Your task to perform on an android device: toggle airplane mode Image 0: 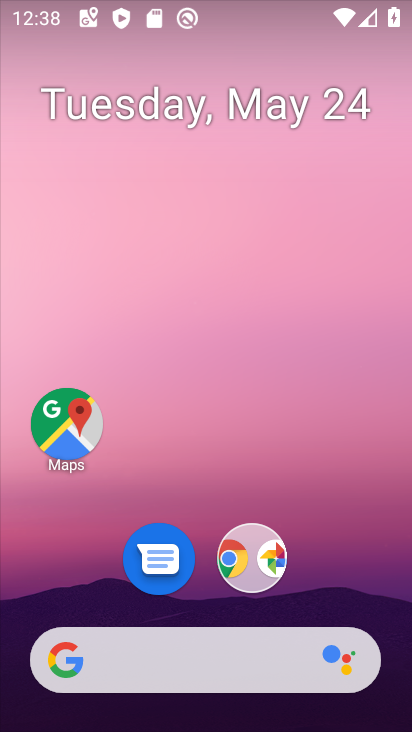
Step 0: drag from (280, 637) to (215, 243)
Your task to perform on an android device: toggle airplane mode Image 1: 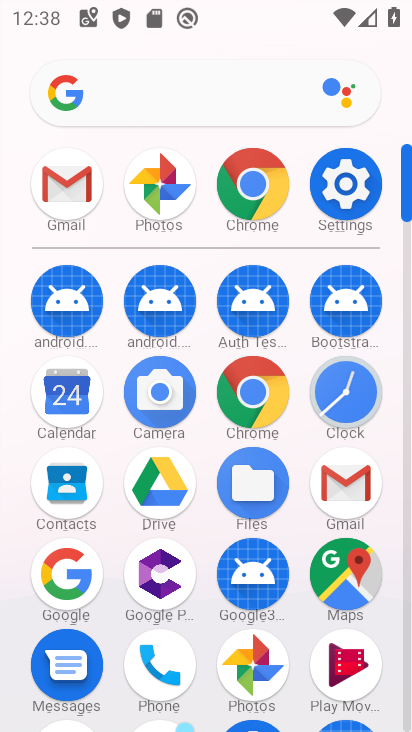
Step 1: click (342, 196)
Your task to perform on an android device: toggle airplane mode Image 2: 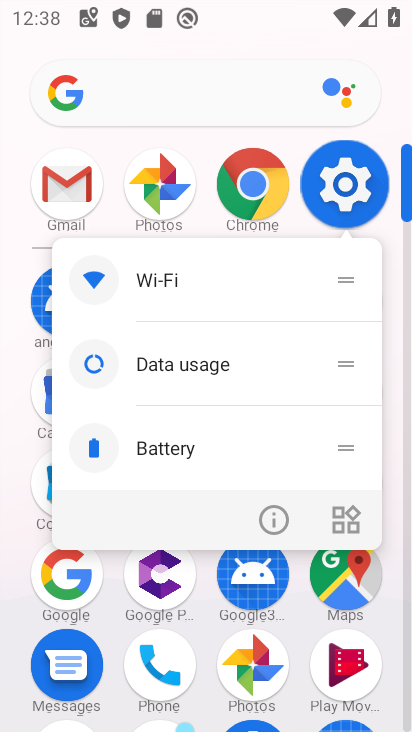
Step 2: click (342, 196)
Your task to perform on an android device: toggle airplane mode Image 3: 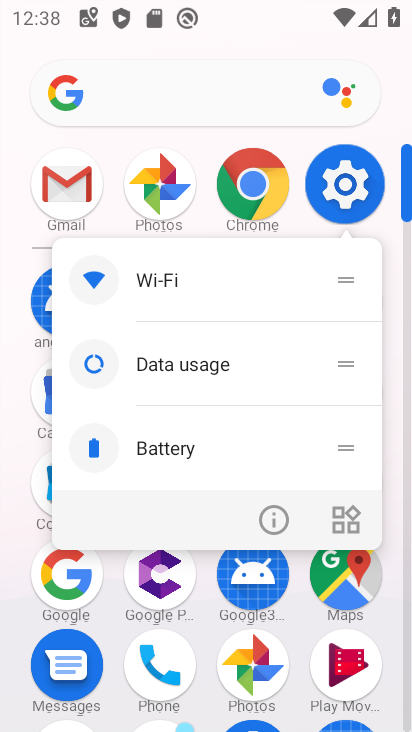
Step 3: click (342, 196)
Your task to perform on an android device: toggle airplane mode Image 4: 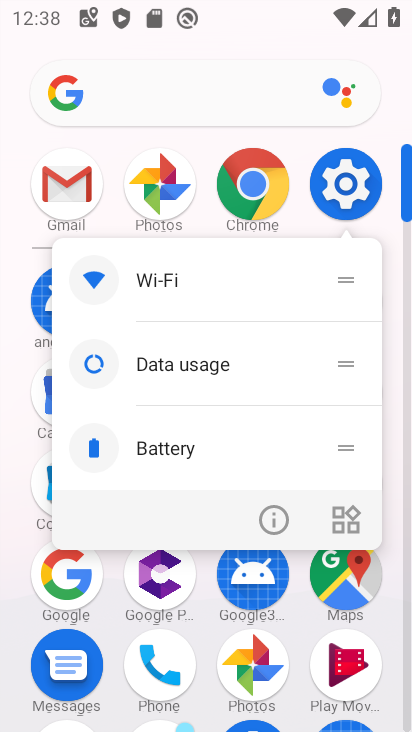
Step 4: click (341, 171)
Your task to perform on an android device: toggle airplane mode Image 5: 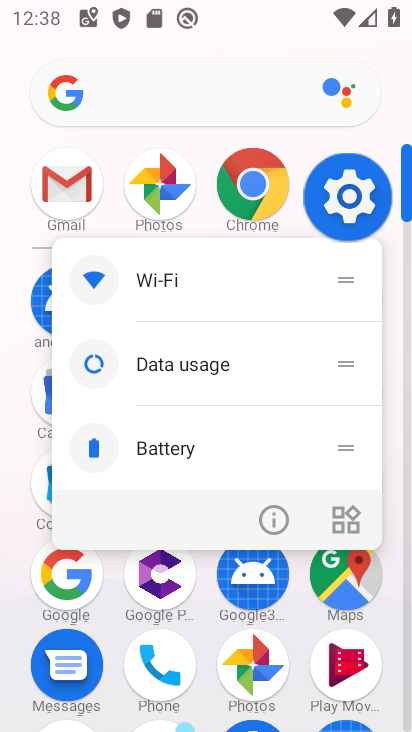
Step 5: click (343, 183)
Your task to perform on an android device: toggle airplane mode Image 6: 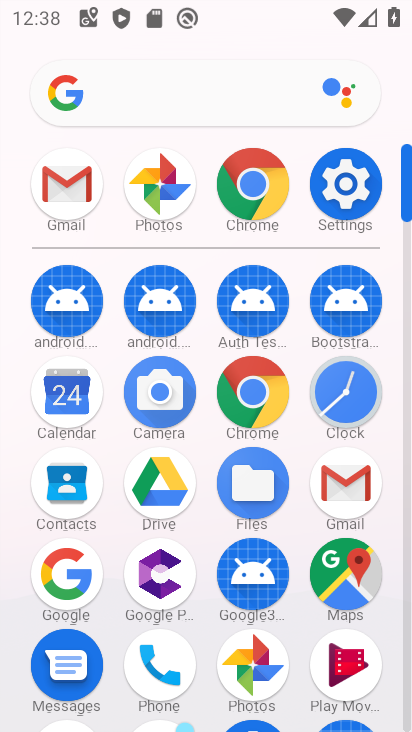
Step 6: click (335, 197)
Your task to perform on an android device: toggle airplane mode Image 7: 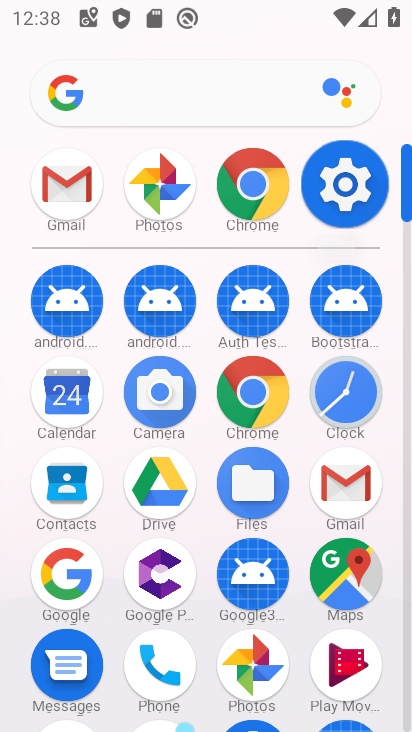
Step 7: click (336, 195)
Your task to perform on an android device: toggle airplane mode Image 8: 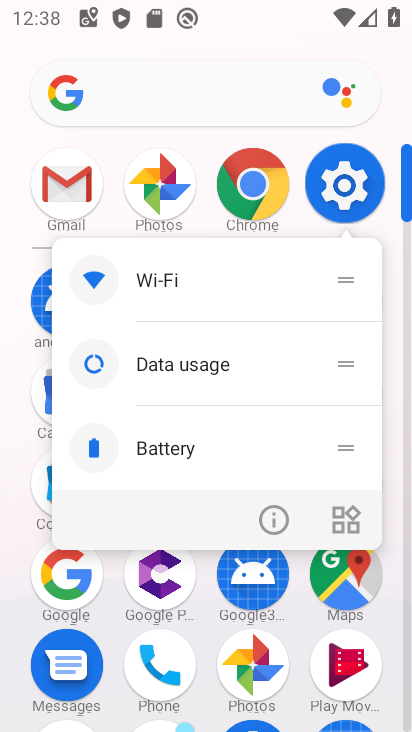
Step 8: click (335, 194)
Your task to perform on an android device: toggle airplane mode Image 9: 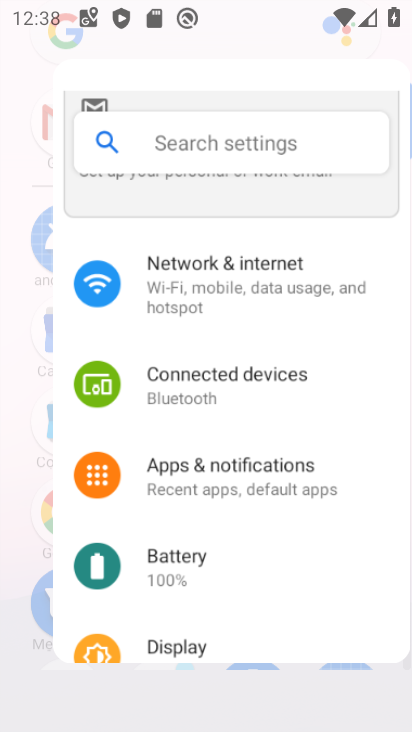
Step 9: click (335, 194)
Your task to perform on an android device: toggle airplane mode Image 10: 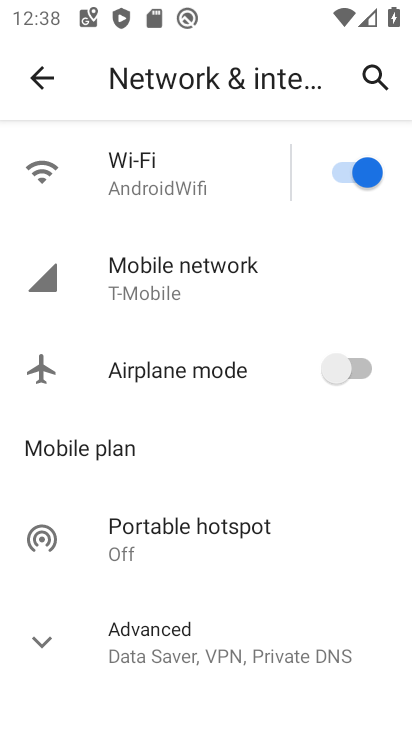
Step 10: drag from (204, 539) to (197, 167)
Your task to perform on an android device: toggle airplane mode Image 11: 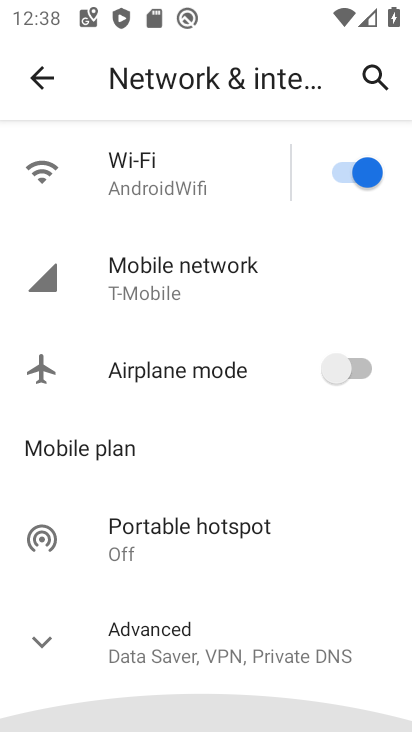
Step 11: drag from (232, 479) to (147, 169)
Your task to perform on an android device: toggle airplane mode Image 12: 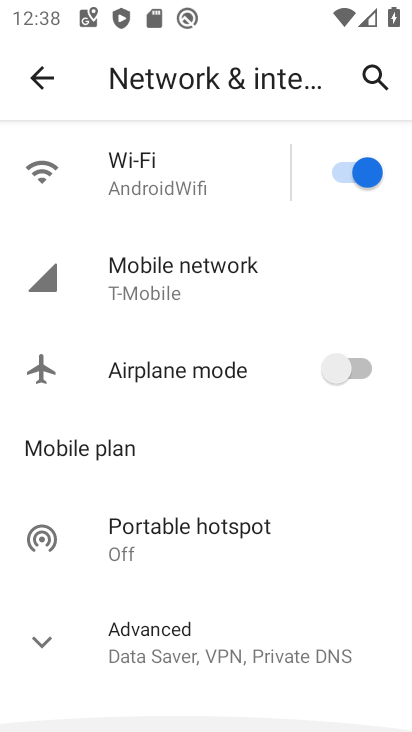
Step 12: drag from (228, 492) to (157, 146)
Your task to perform on an android device: toggle airplane mode Image 13: 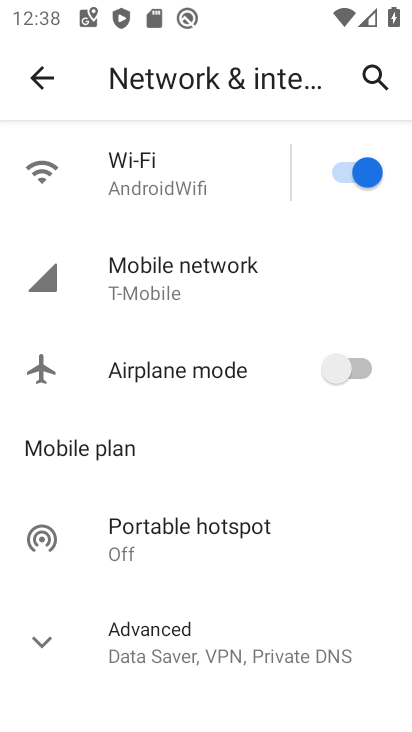
Step 13: drag from (218, 612) to (143, 164)
Your task to perform on an android device: toggle airplane mode Image 14: 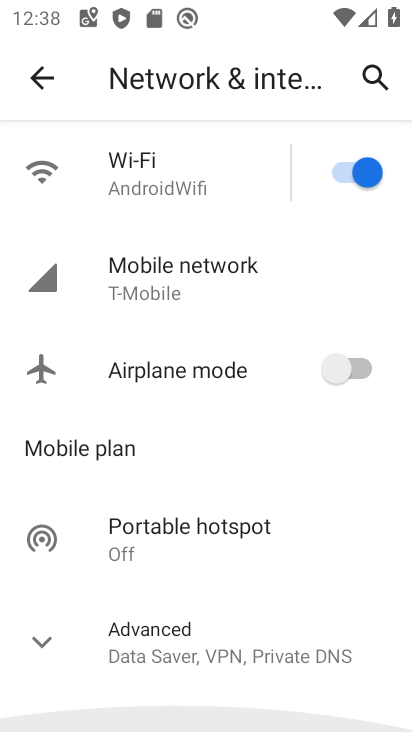
Step 14: click (38, 71)
Your task to perform on an android device: toggle airplane mode Image 15: 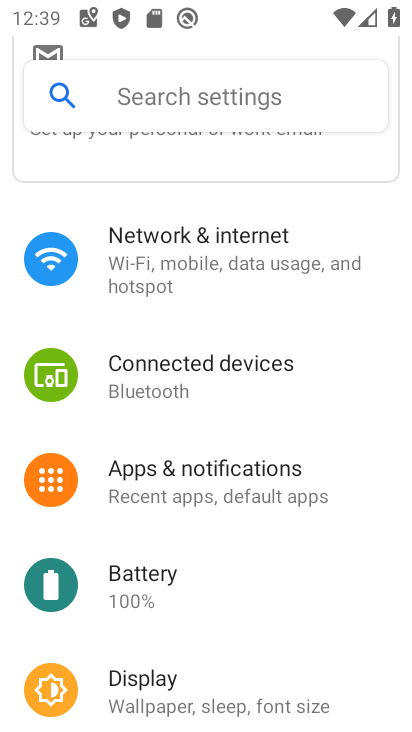
Step 15: drag from (180, 555) to (180, 186)
Your task to perform on an android device: toggle airplane mode Image 16: 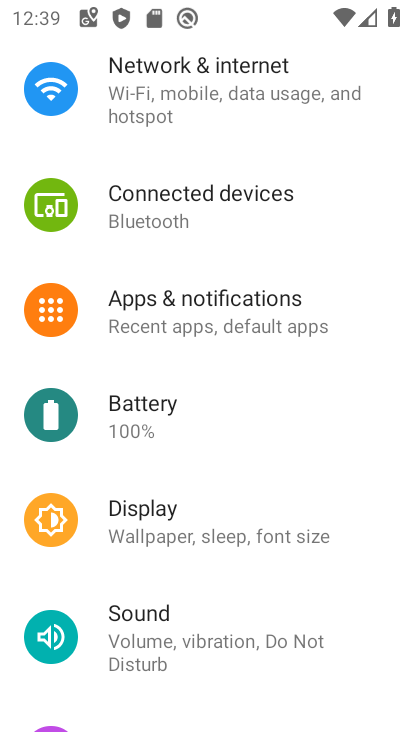
Step 16: drag from (187, 532) to (187, 242)
Your task to perform on an android device: toggle airplane mode Image 17: 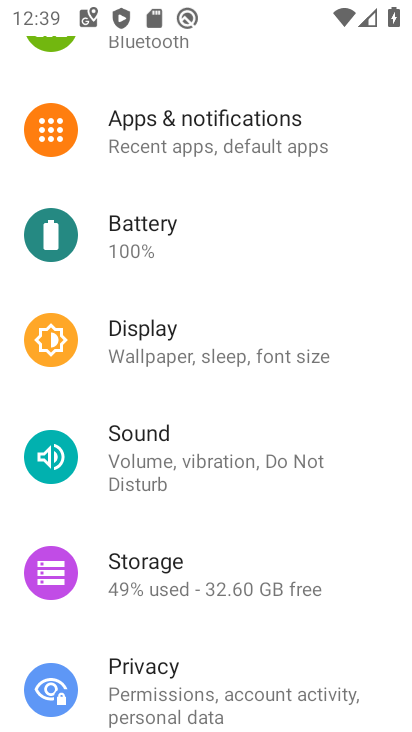
Step 17: drag from (216, 444) to (213, 103)
Your task to perform on an android device: toggle airplane mode Image 18: 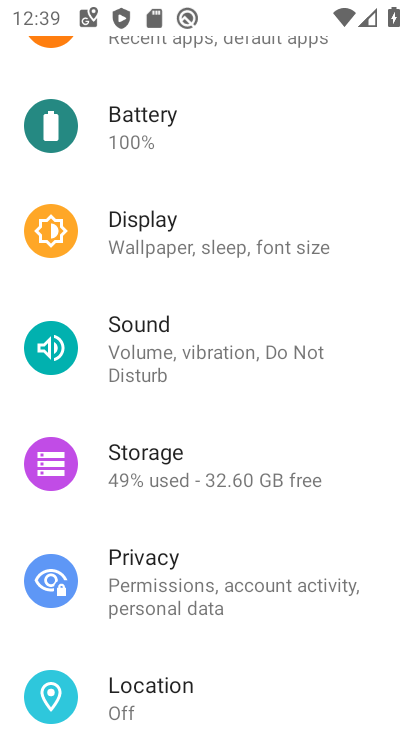
Step 18: drag from (221, 505) to (206, 32)
Your task to perform on an android device: toggle airplane mode Image 19: 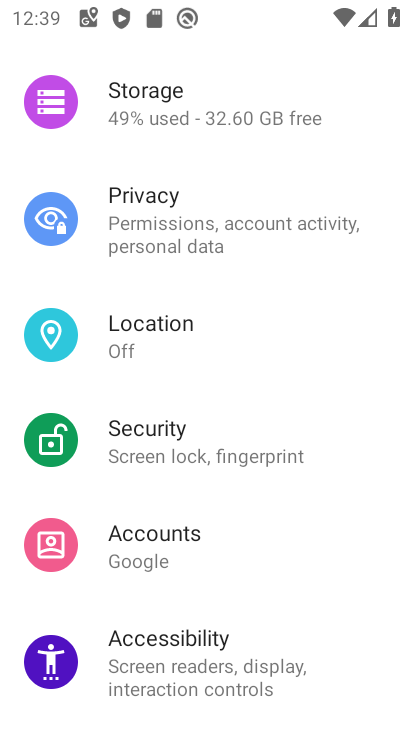
Step 19: drag from (182, 567) to (152, 19)
Your task to perform on an android device: toggle airplane mode Image 20: 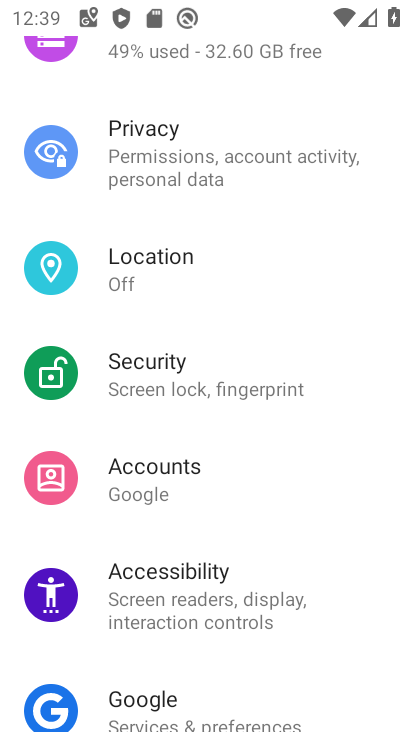
Step 20: drag from (165, 437) to (181, 23)
Your task to perform on an android device: toggle airplane mode Image 21: 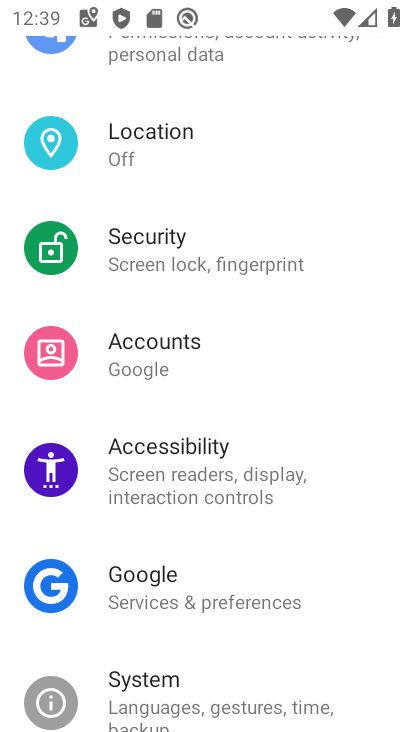
Step 21: drag from (164, 540) to (133, 2)
Your task to perform on an android device: toggle airplane mode Image 22: 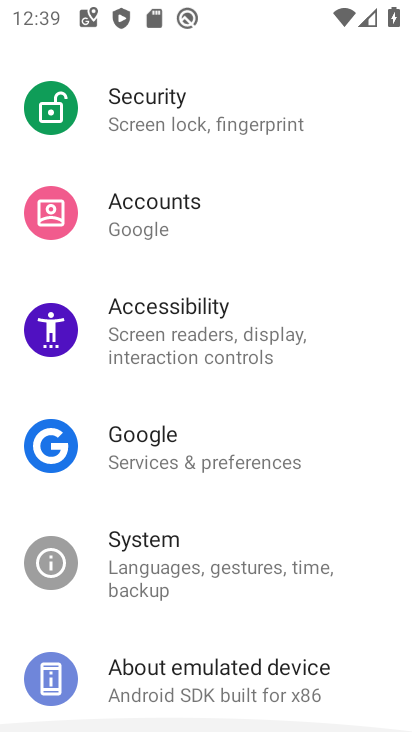
Step 22: drag from (207, 416) to (204, 121)
Your task to perform on an android device: toggle airplane mode Image 23: 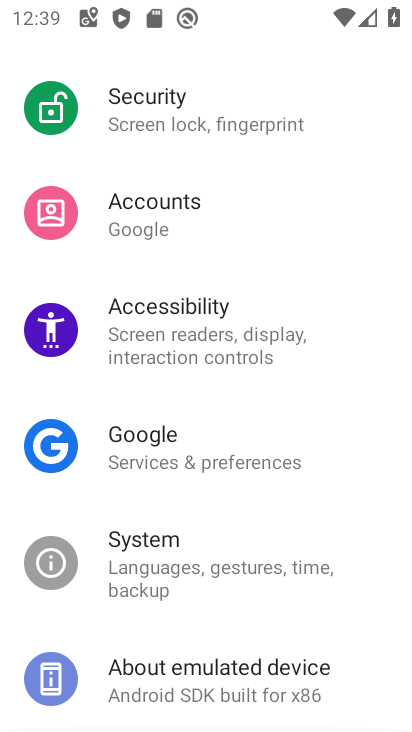
Step 23: drag from (162, 286) to (152, 156)
Your task to perform on an android device: toggle airplane mode Image 24: 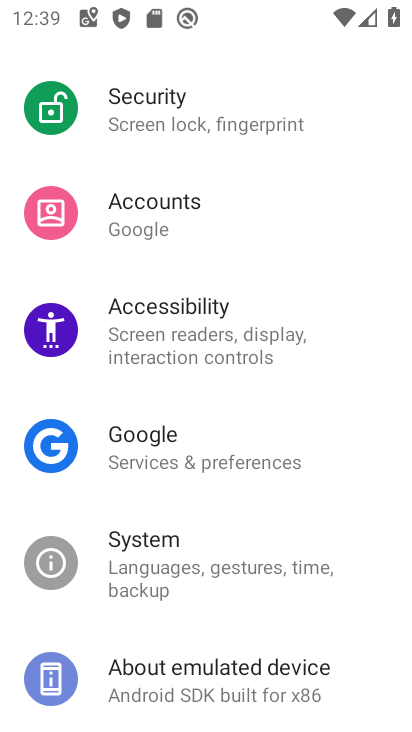
Step 24: drag from (129, 494) to (124, 5)
Your task to perform on an android device: toggle airplane mode Image 25: 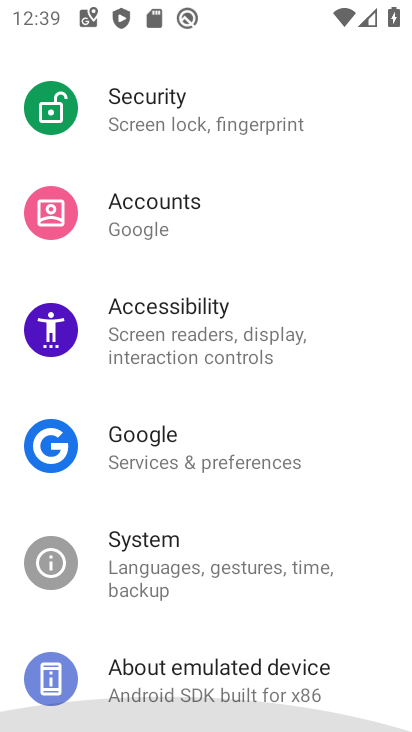
Step 25: drag from (143, 554) to (132, 6)
Your task to perform on an android device: toggle airplane mode Image 26: 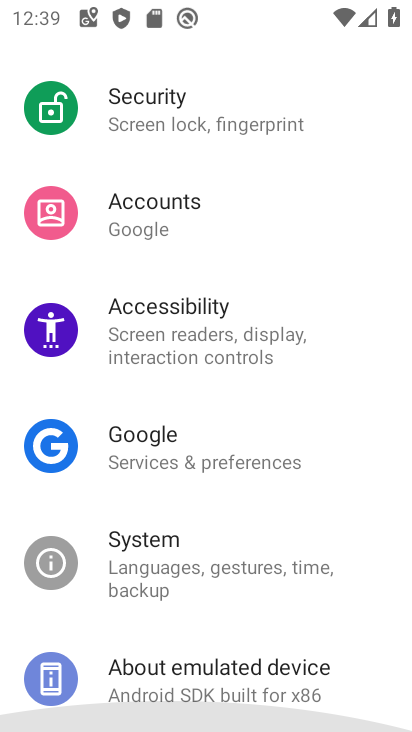
Step 26: drag from (224, 560) to (194, 103)
Your task to perform on an android device: toggle airplane mode Image 27: 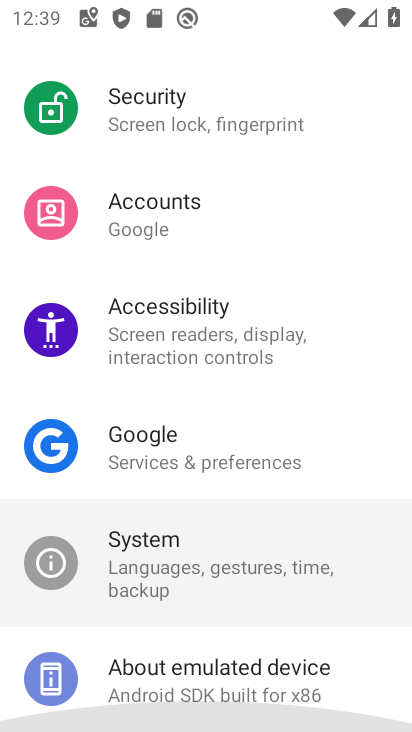
Step 27: drag from (212, 497) to (204, 92)
Your task to perform on an android device: toggle airplane mode Image 28: 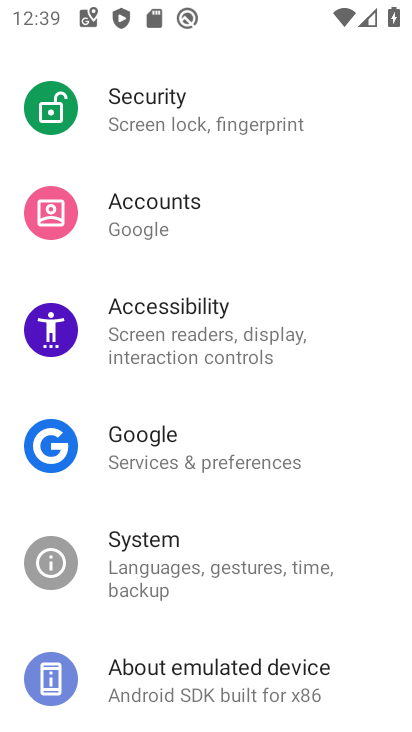
Step 28: drag from (137, 201) to (211, 639)
Your task to perform on an android device: toggle airplane mode Image 29: 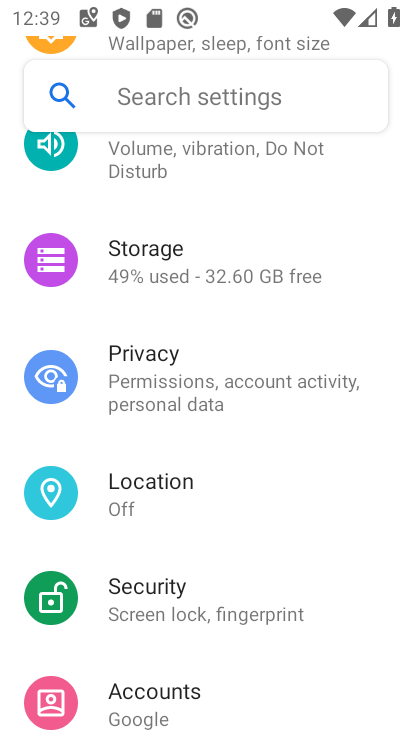
Step 29: drag from (207, 131) to (209, 719)
Your task to perform on an android device: toggle airplane mode Image 30: 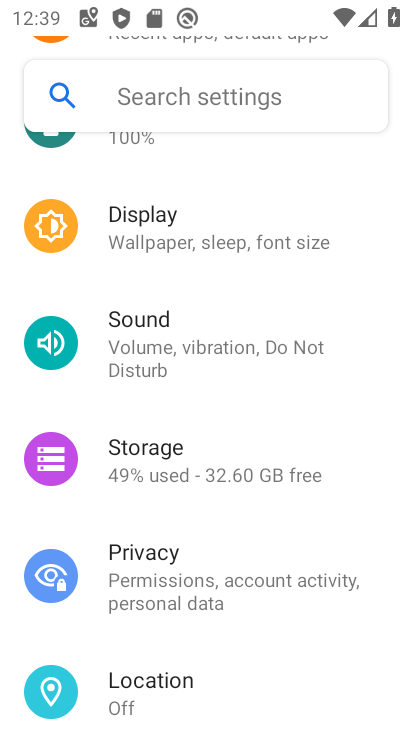
Step 30: drag from (293, 323) to (292, 684)
Your task to perform on an android device: toggle airplane mode Image 31: 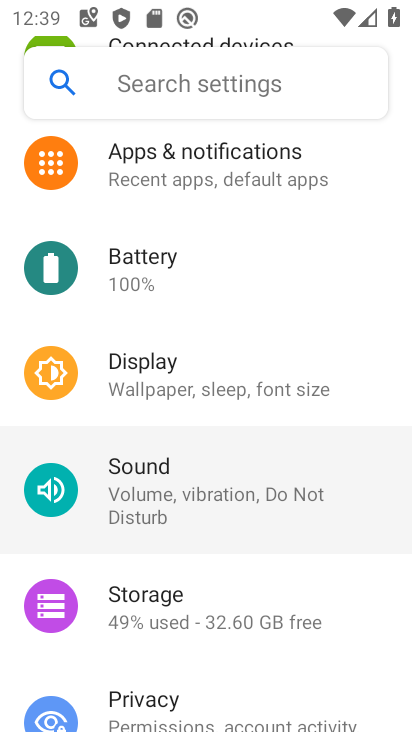
Step 31: drag from (215, 244) to (211, 723)
Your task to perform on an android device: toggle airplane mode Image 32: 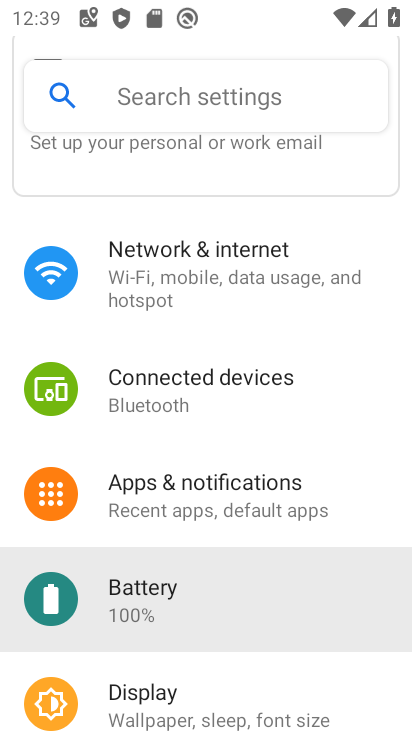
Step 32: drag from (188, 272) to (190, 654)
Your task to perform on an android device: toggle airplane mode Image 33: 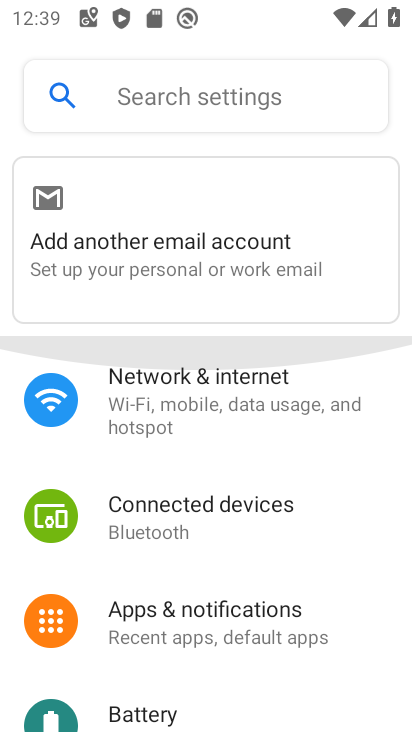
Step 33: drag from (176, 230) to (237, 666)
Your task to perform on an android device: toggle airplane mode Image 34: 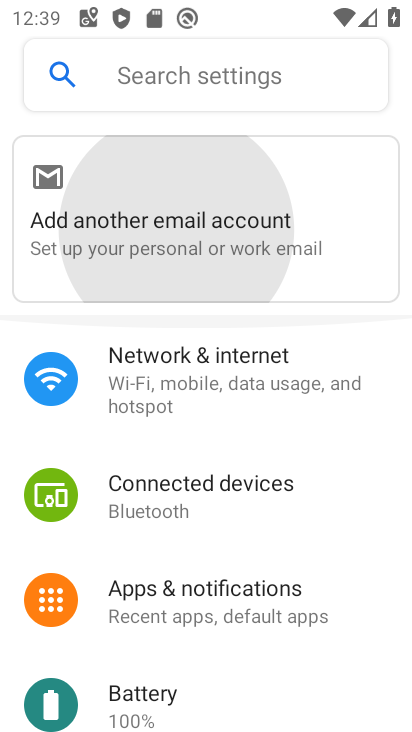
Step 34: drag from (217, 577) to (209, 721)
Your task to perform on an android device: toggle airplane mode Image 35: 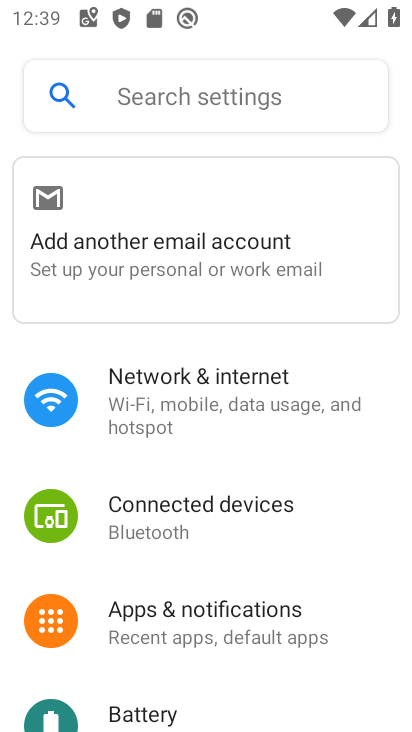
Step 35: drag from (271, 612) to (244, 289)
Your task to perform on an android device: toggle airplane mode Image 36: 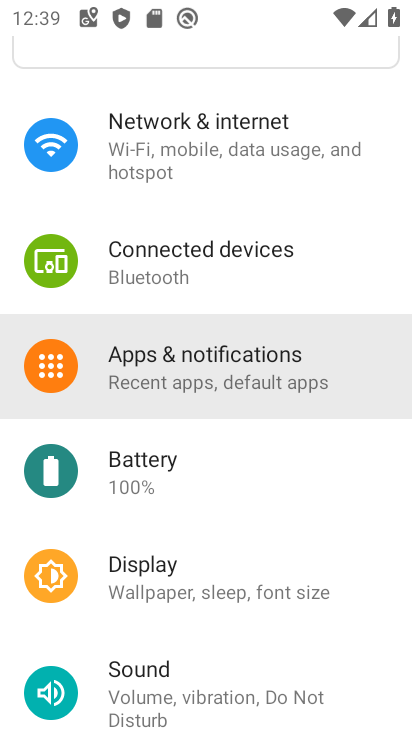
Step 36: drag from (254, 517) to (228, 117)
Your task to perform on an android device: toggle airplane mode Image 37: 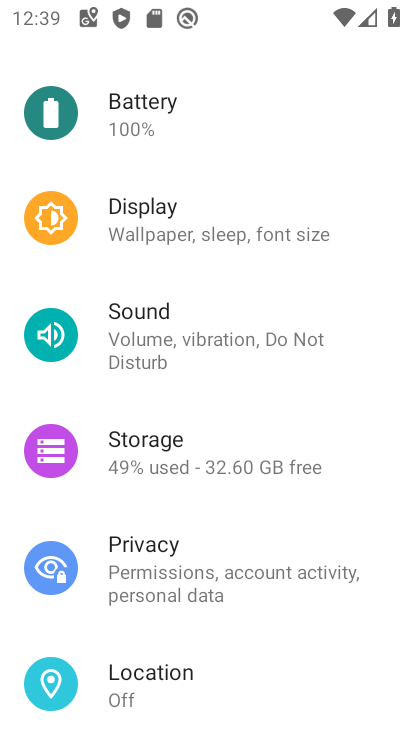
Step 37: click (192, 115)
Your task to perform on an android device: toggle airplane mode Image 38: 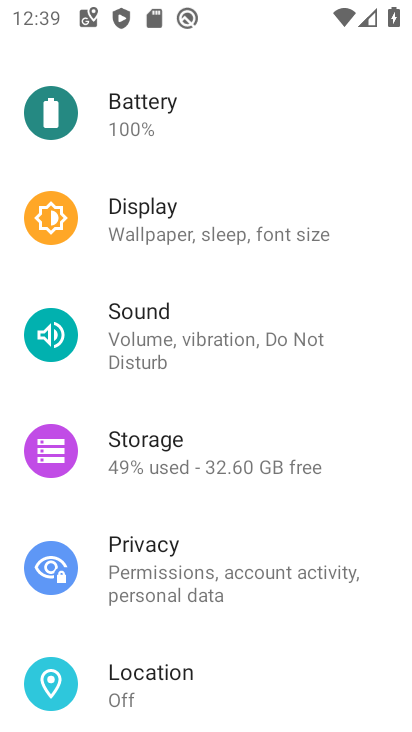
Step 38: drag from (206, 216) to (206, 68)
Your task to perform on an android device: toggle airplane mode Image 39: 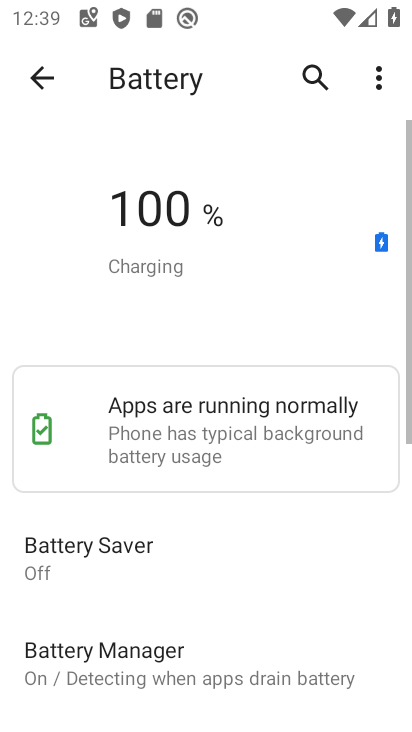
Step 39: click (49, 66)
Your task to perform on an android device: toggle airplane mode Image 40: 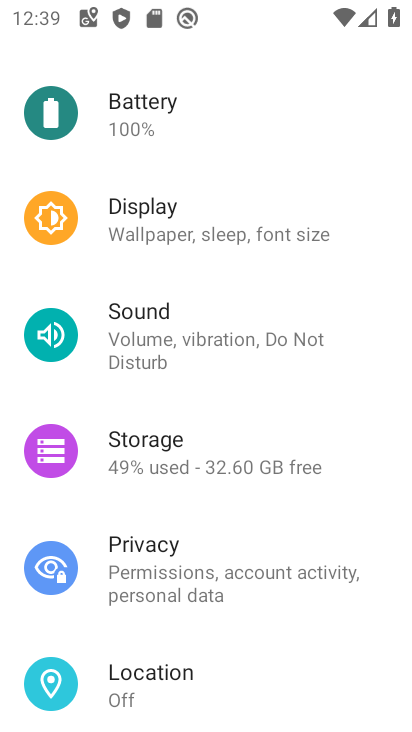
Step 40: drag from (235, 379) to (188, 1)
Your task to perform on an android device: toggle airplane mode Image 41: 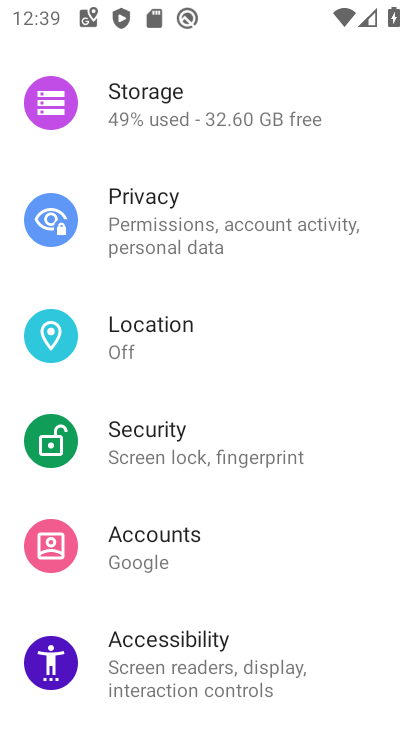
Step 41: drag from (248, 429) to (229, 88)
Your task to perform on an android device: toggle airplane mode Image 42: 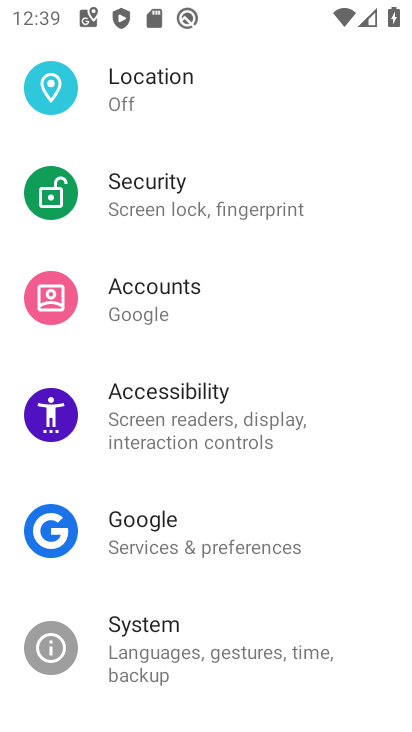
Step 42: click (205, 91)
Your task to perform on an android device: toggle airplane mode Image 43: 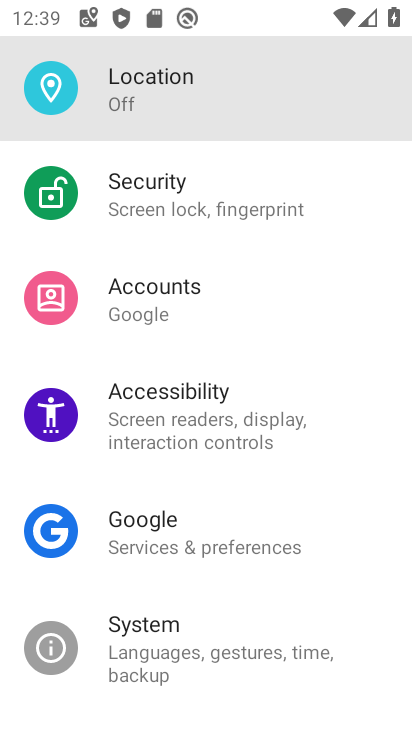
Step 43: drag from (201, 415) to (170, 212)
Your task to perform on an android device: toggle airplane mode Image 44: 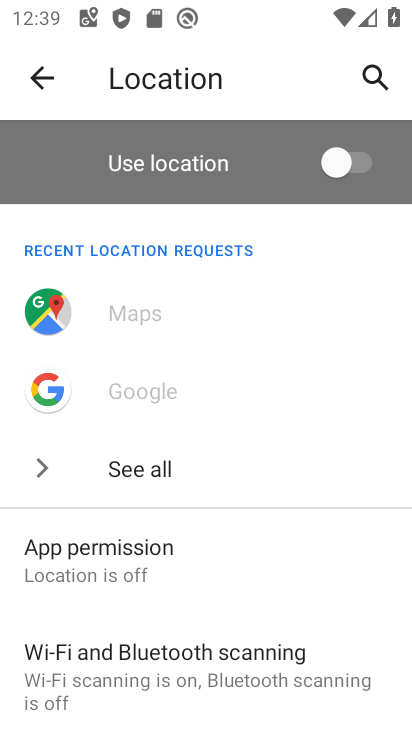
Step 44: click (39, 79)
Your task to perform on an android device: toggle airplane mode Image 45: 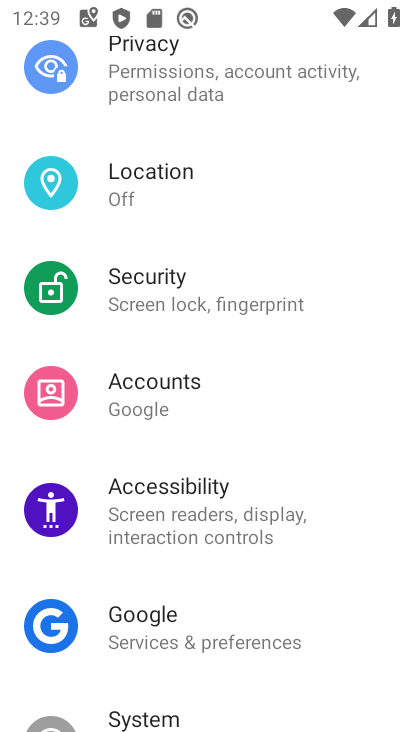
Step 45: drag from (147, 205) to (201, 585)
Your task to perform on an android device: toggle airplane mode Image 46: 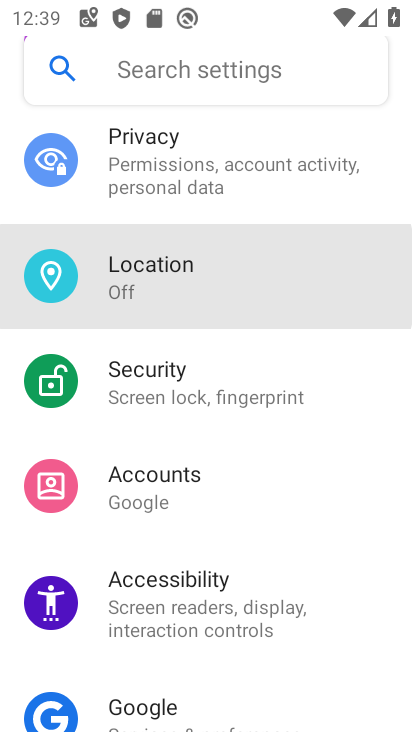
Step 46: drag from (201, 286) to (200, 533)
Your task to perform on an android device: toggle airplane mode Image 47: 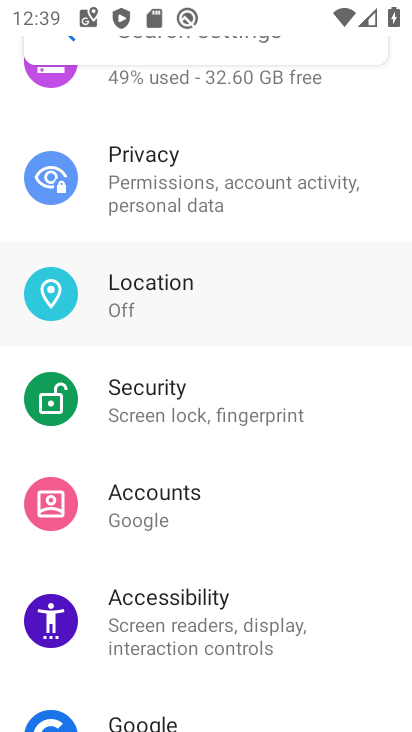
Step 47: drag from (199, 131) to (151, 648)
Your task to perform on an android device: toggle airplane mode Image 48: 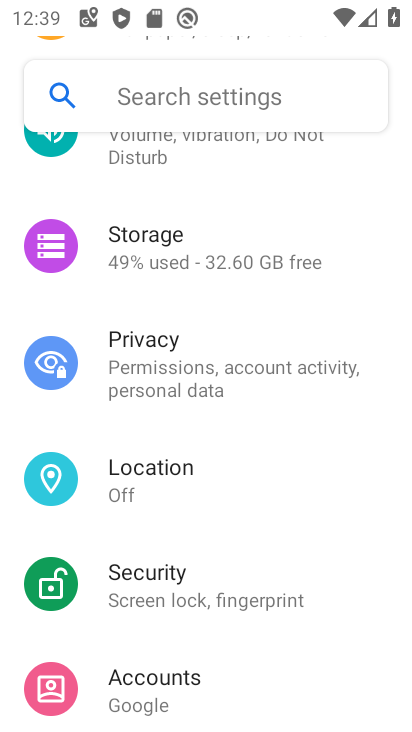
Step 48: drag from (147, 255) to (198, 619)
Your task to perform on an android device: toggle airplane mode Image 49: 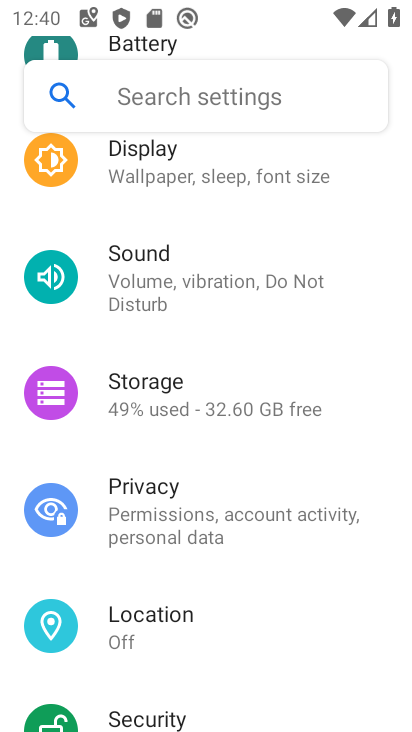
Step 49: drag from (152, 228) to (155, 606)
Your task to perform on an android device: toggle airplane mode Image 50: 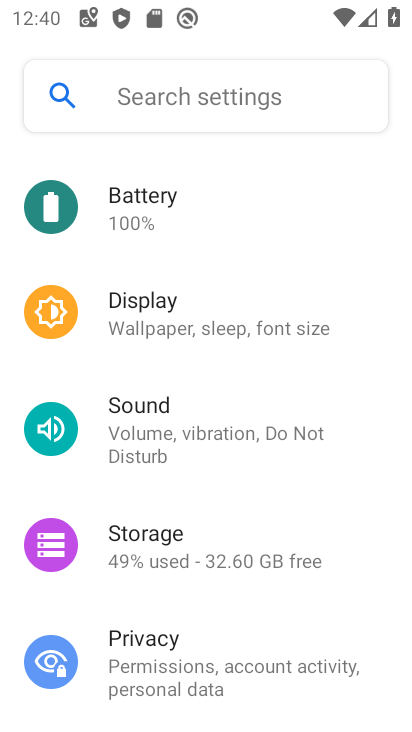
Step 50: drag from (207, 639) to (127, 228)
Your task to perform on an android device: toggle airplane mode Image 51: 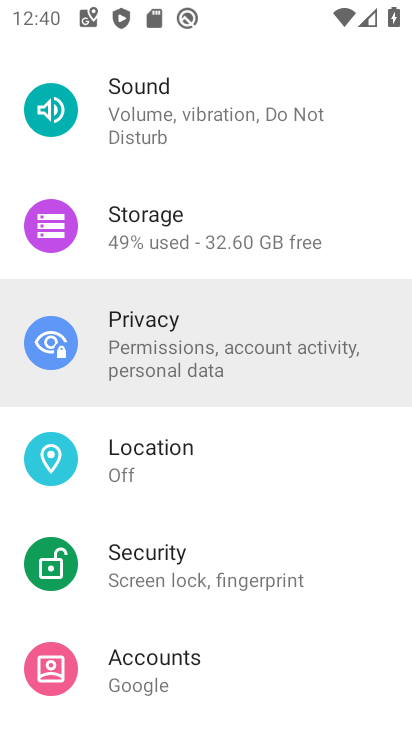
Step 51: drag from (177, 453) to (175, 0)
Your task to perform on an android device: toggle airplane mode Image 52: 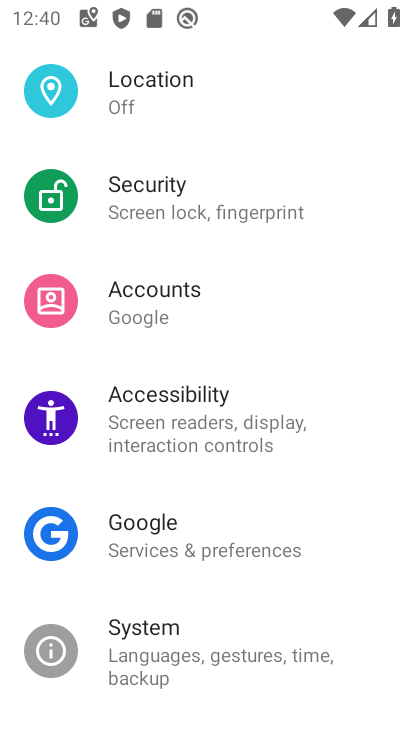
Step 52: drag from (194, 626) to (167, 200)
Your task to perform on an android device: toggle airplane mode Image 53: 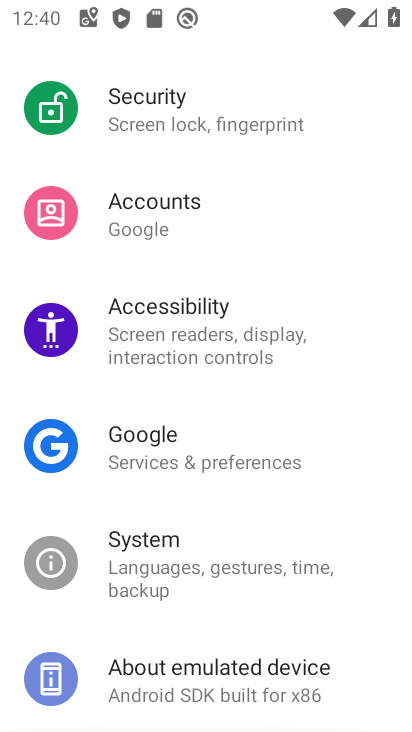
Step 53: drag from (138, 276) to (133, 610)
Your task to perform on an android device: toggle airplane mode Image 54: 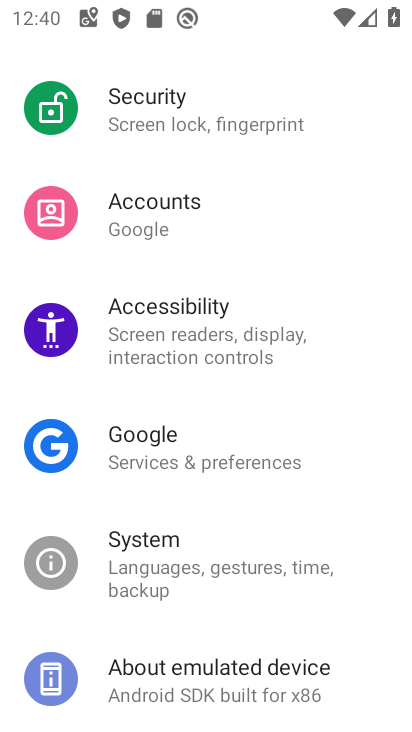
Step 54: drag from (111, 245) to (217, 583)
Your task to perform on an android device: toggle airplane mode Image 55: 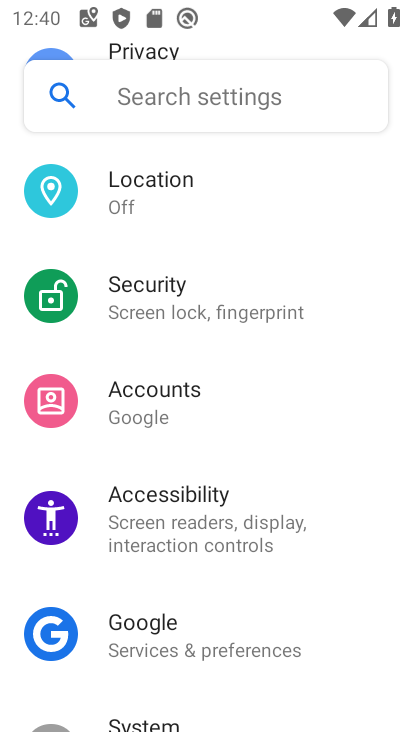
Step 55: drag from (172, 231) to (225, 668)
Your task to perform on an android device: toggle airplane mode Image 56: 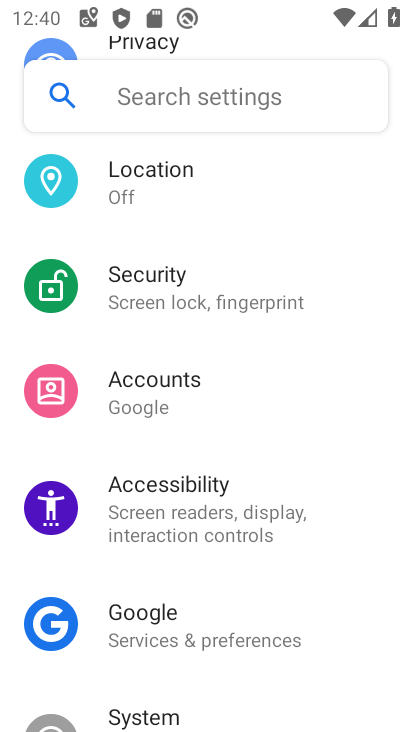
Step 56: drag from (167, 291) to (255, 651)
Your task to perform on an android device: toggle airplane mode Image 57: 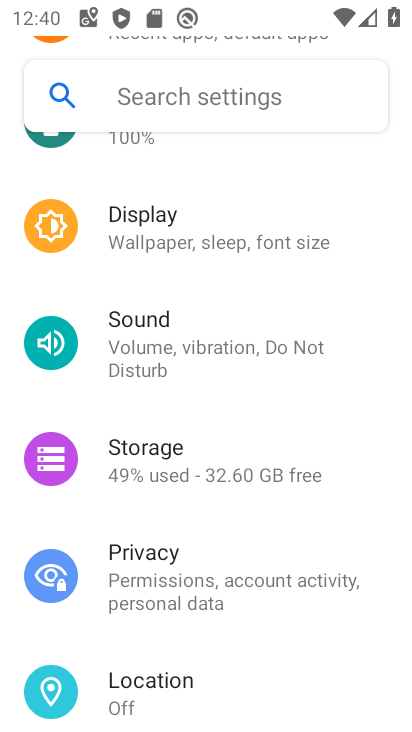
Step 57: drag from (182, 223) to (228, 572)
Your task to perform on an android device: toggle airplane mode Image 58: 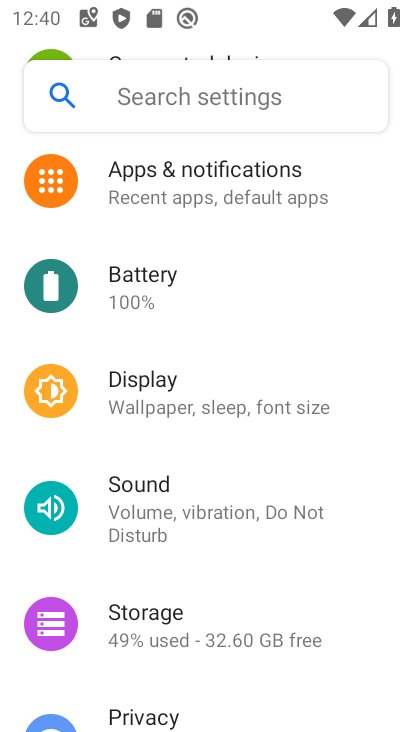
Step 58: drag from (203, 290) to (262, 719)
Your task to perform on an android device: toggle airplane mode Image 59: 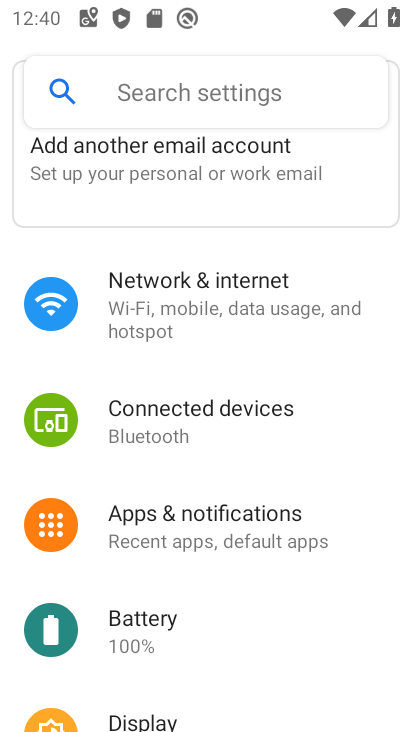
Step 59: drag from (196, 281) to (240, 685)
Your task to perform on an android device: toggle airplane mode Image 60: 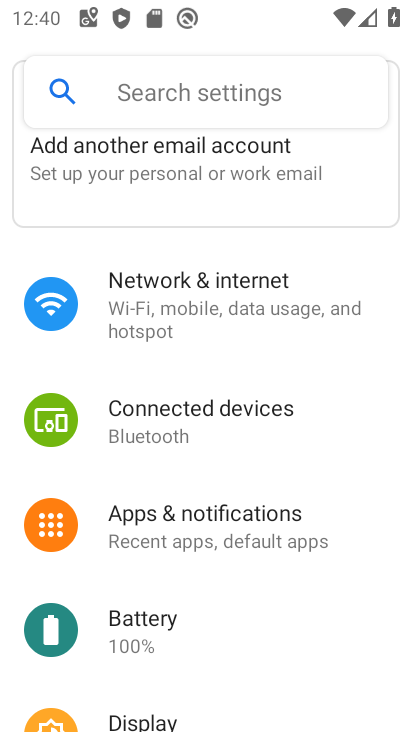
Step 60: drag from (191, 315) to (251, 631)
Your task to perform on an android device: toggle airplane mode Image 61: 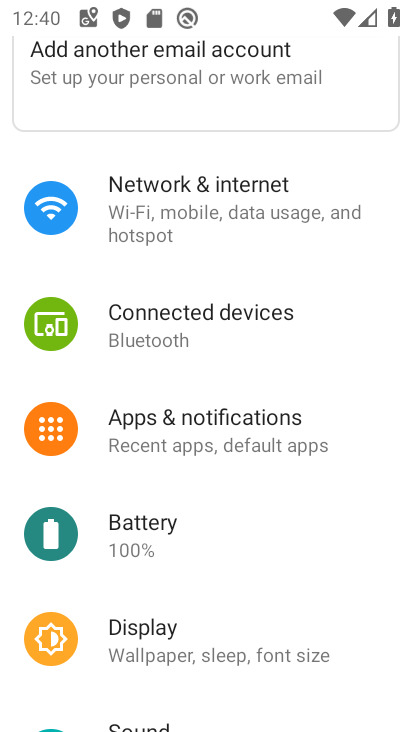
Step 61: drag from (208, 309) to (155, 681)
Your task to perform on an android device: toggle airplane mode Image 62: 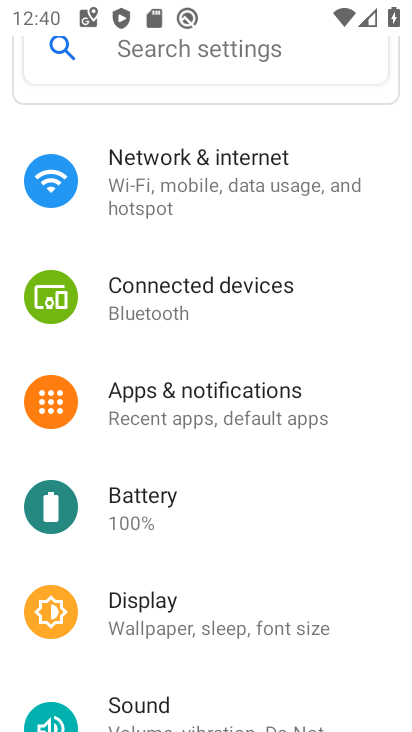
Step 62: drag from (193, 494) to (201, 647)
Your task to perform on an android device: toggle airplane mode Image 63: 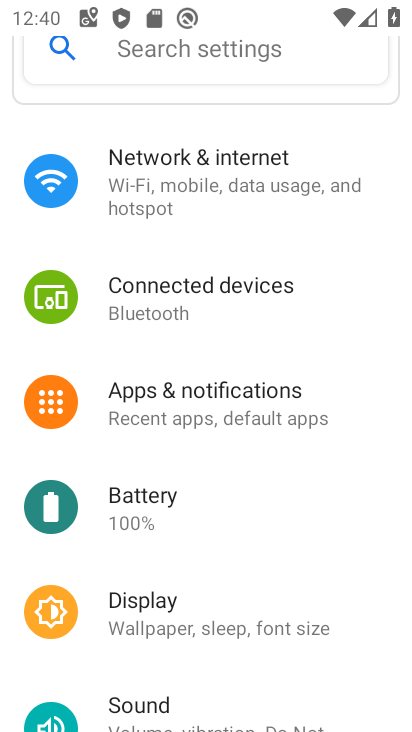
Step 63: drag from (183, 310) to (154, 574)
Your task to perform on an android device: toggle airplane mode Image 64: 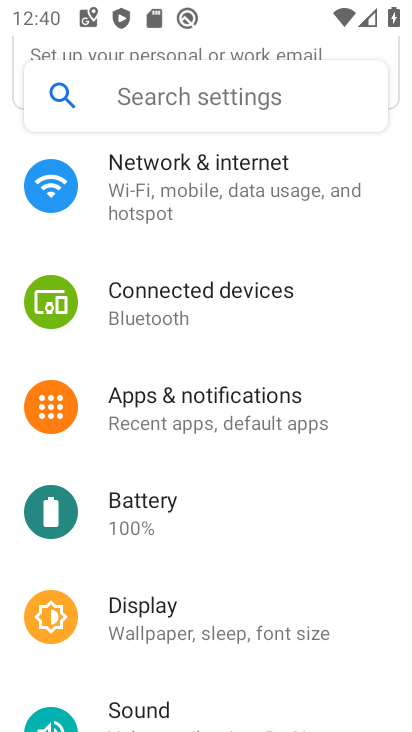
Step 64: click (227, 178)
Your task to perform on an android device: toggle airplane mode Image 65: 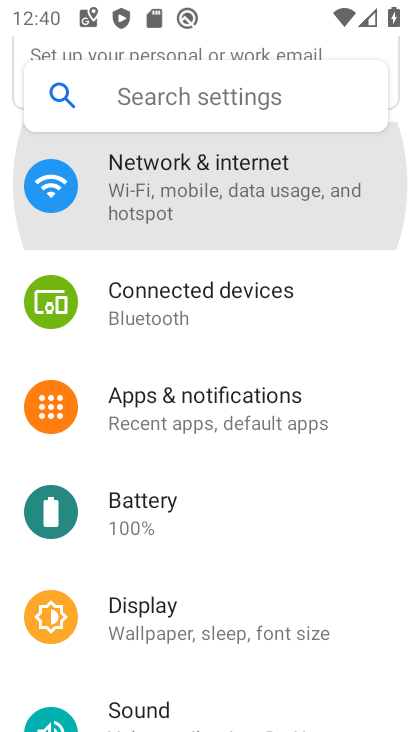
Step 65: click (229, 187)
Your task to perform on an android device: toggle airplane mode Image 66: 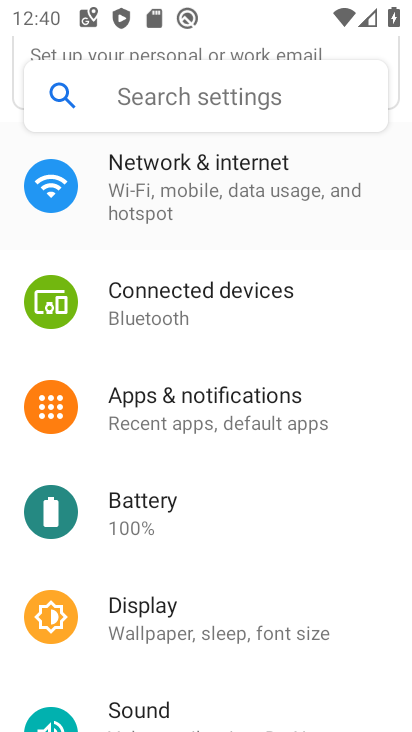
Step 66: click (229, 187)
Your task to perform on an android device: toggle airplane mode Image 67: 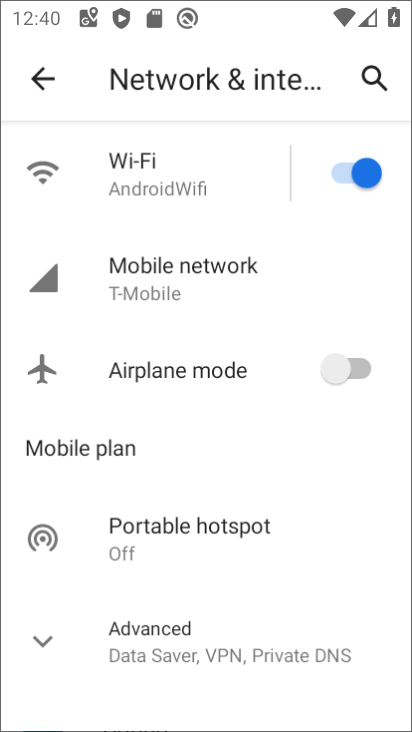
Step 67: click (229, 187)
Your task to perform on an android device: toggle airplane mode Image 68: 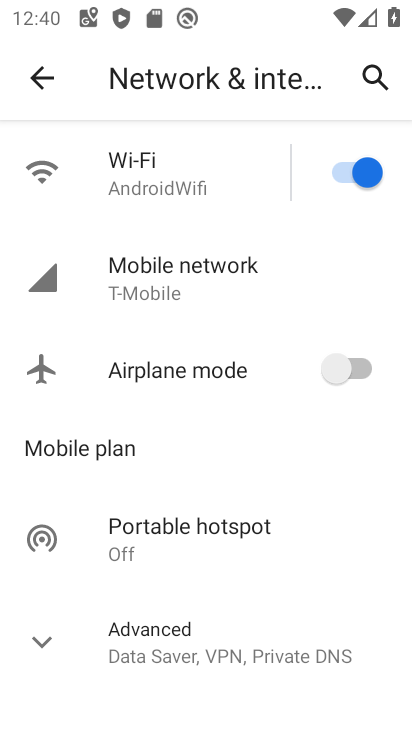
Step 68: click (229, 187)
Your task to perform on an android device: toggle airplane mode Image 69: 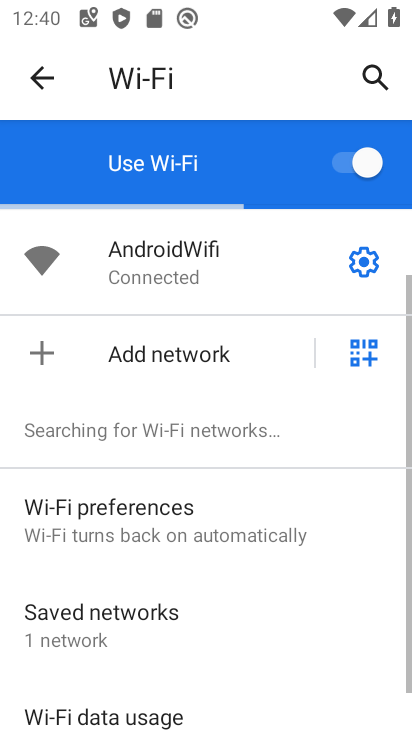
Step 69: click (348, 358)
Your task to perform on an android device: toggle airplane mode Image 70: 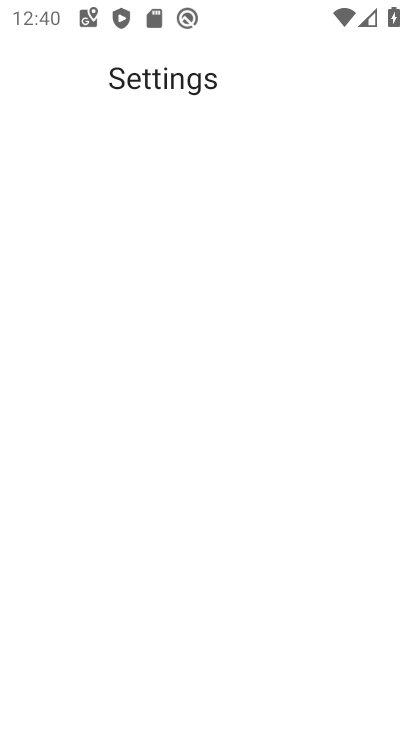
Step 70: click (48, 65)
Your task to perform on an android device: toggle airplane mode Image 71: 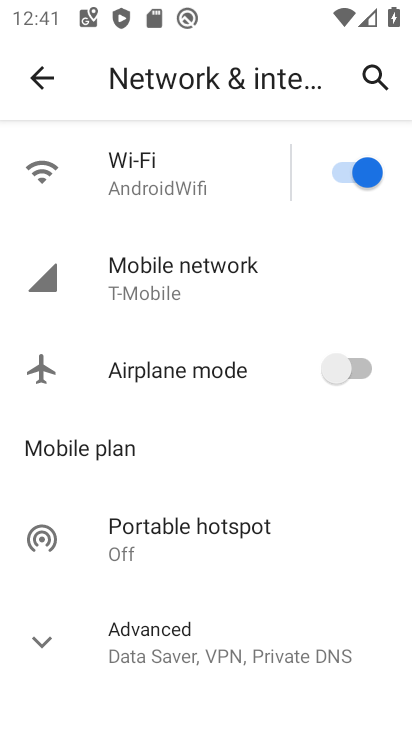
Step 71: click (328, 377)
Your task to perform on an android device: toggle airplane mode Image 72: 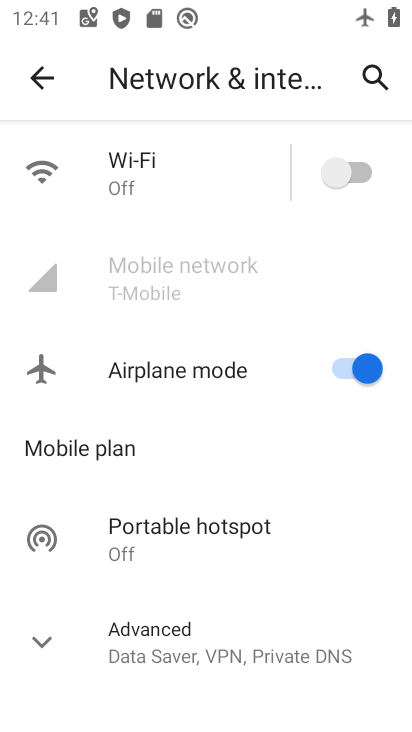
Step 72: click (337, 371)
Your task to perform on an android device: toggle airplane mode Image 73: 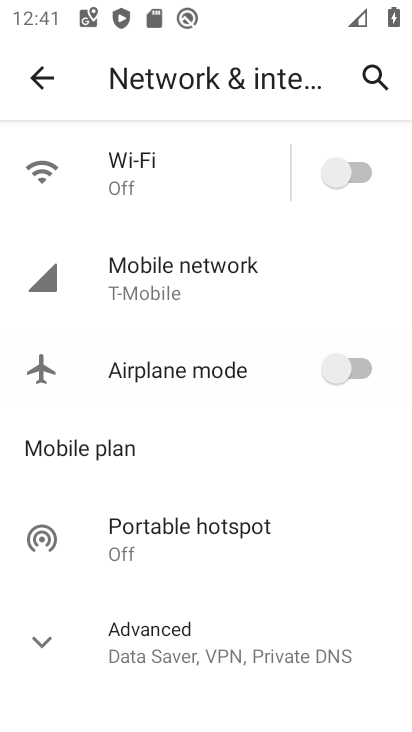
Step 73: click (336, 367)
Your task to perform on an android device: toggle airplane mode Image 74: 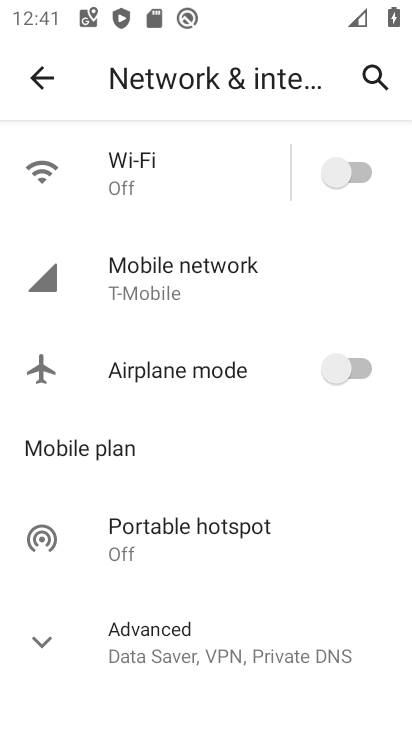
Step 74: click (337, 367)
Your task to perform on an android device: toggle airplane mode Image 75: 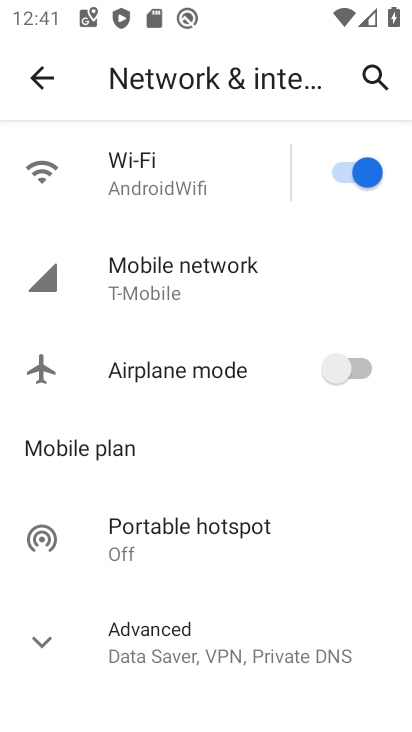
Step 75: task complete